Your task to perform on an android device: Go to Amazon Image 0: 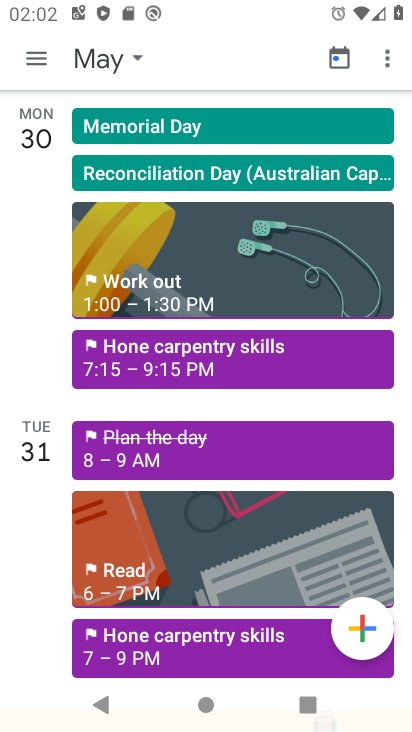
Step 0: press home button
Your task to perform on an android device: Go to Amazon Image 1: 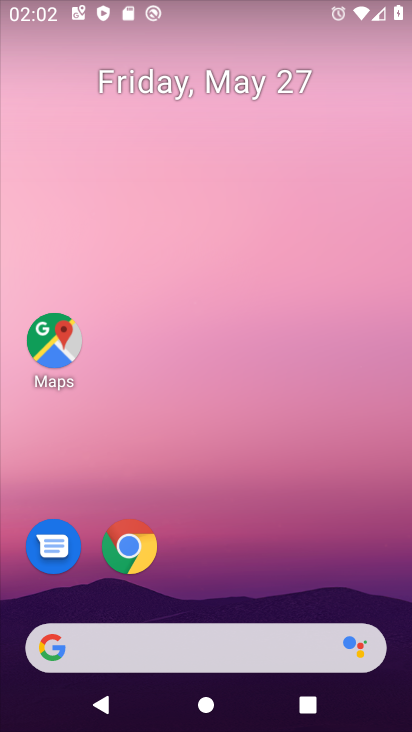
Step 1: drag from (279, 681) to (231, 273)
Your task to perform on an android device: Go to Amazon Image 2: 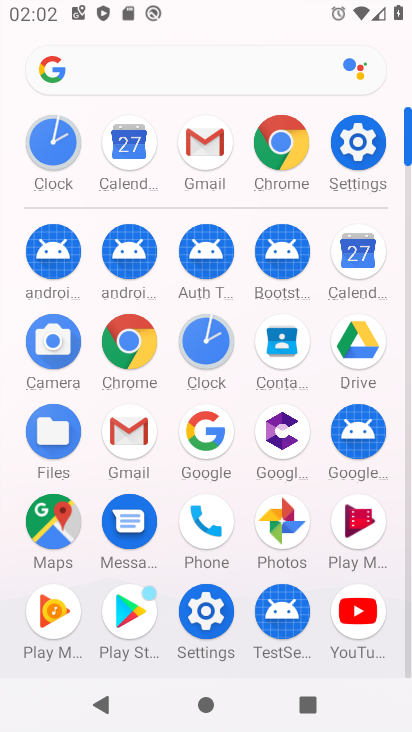
Step 2: click (302, 149)
Your task to perform on an android device: Go to Amazon Image 3: 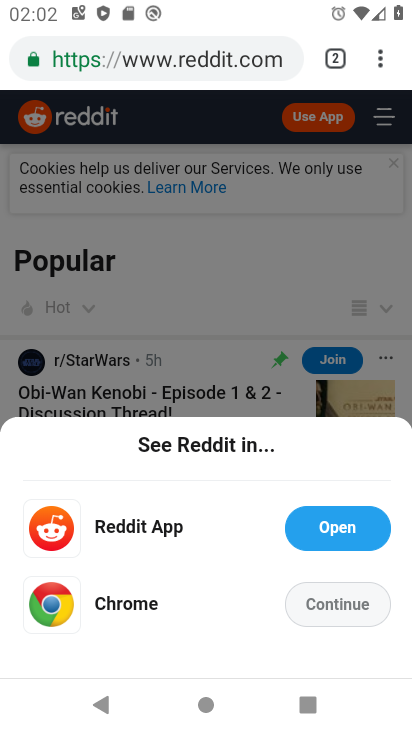
Step 3: click (200, 629)
Your task to perform on an android device: Go to Amazon Image 4: 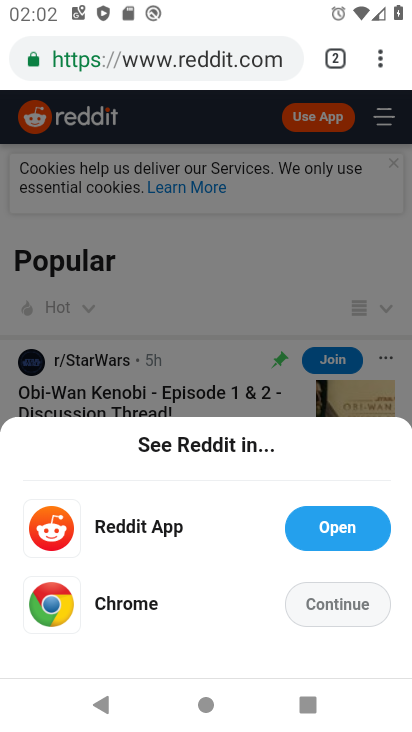
Step 4: click (215, 68)
Your task to perform on an android device: Go to Amazon Image 5: 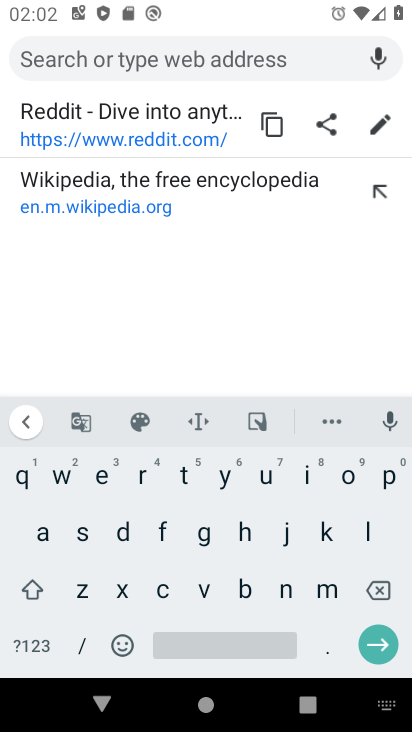
Step 5: click (44, 542)
Your task to perform on an android device: Go to Amazon Image 6: 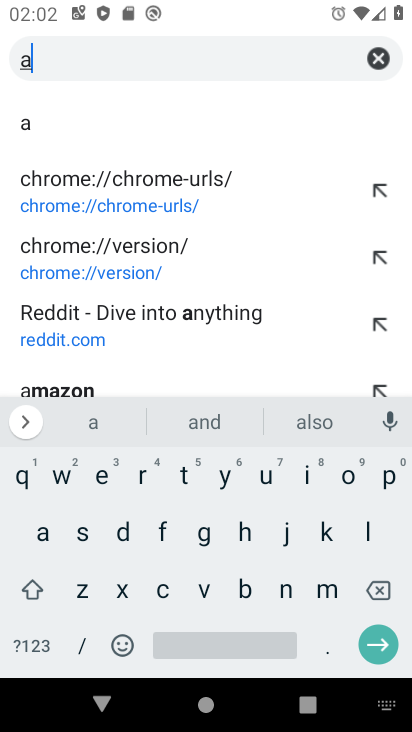
Step 6: click (110, 381)
Your task to perform on an android device: Go to Amazon Image 7: 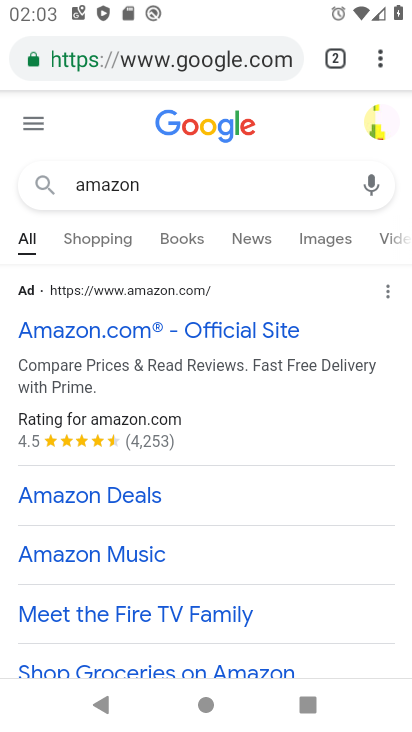
Step 7: click (95, 336)
Your task to perform on an android device: Go to Amazon Image 8: 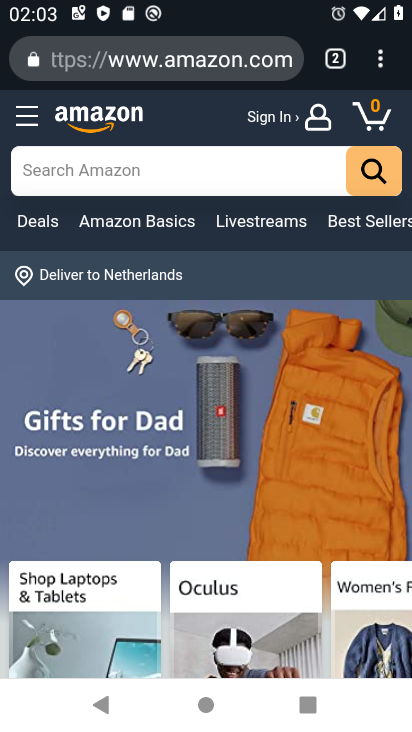
Step 8: task complete